Your task to perform on an android device: see tabs open on other devices in the chrome app Image 0: 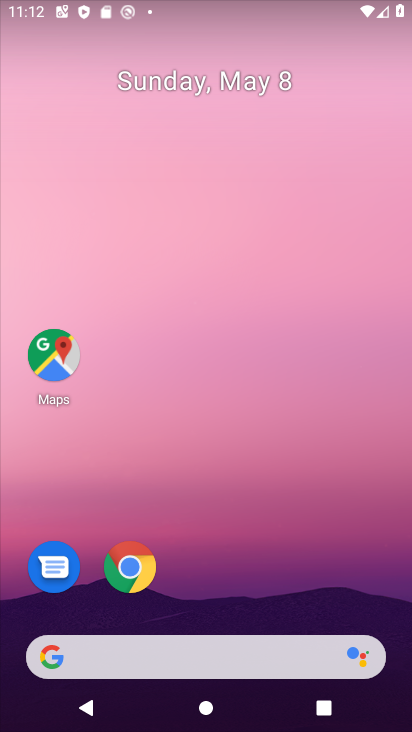
Step 0: click (127, 569)
Your task to perform on an android device: see tabs open on other devices in the chrome app Image 1: 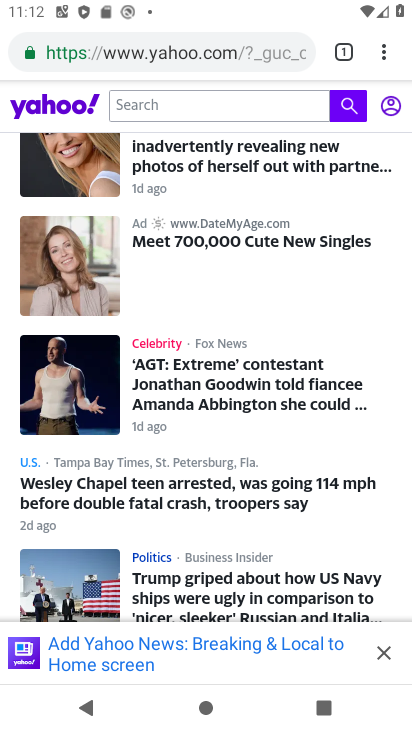
Step 1: click (380, 52)
Your task to perform on an android device: see tabs open on other devices in the chrome app Image 2: 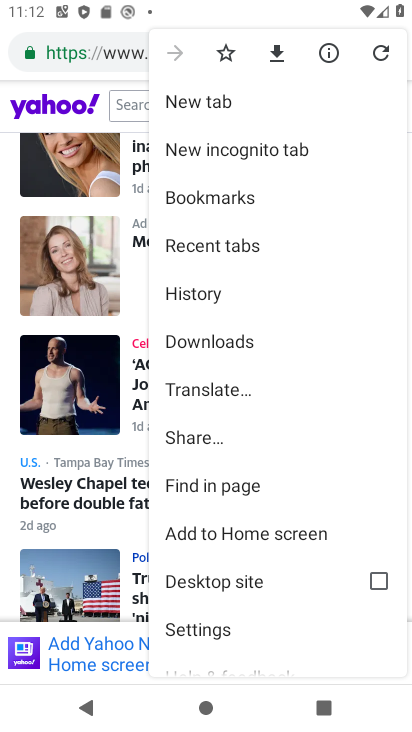
Step 2: click (265, 246)
Your task to perform on an android device: see tabs open on other devices in the chrome app Image 3: 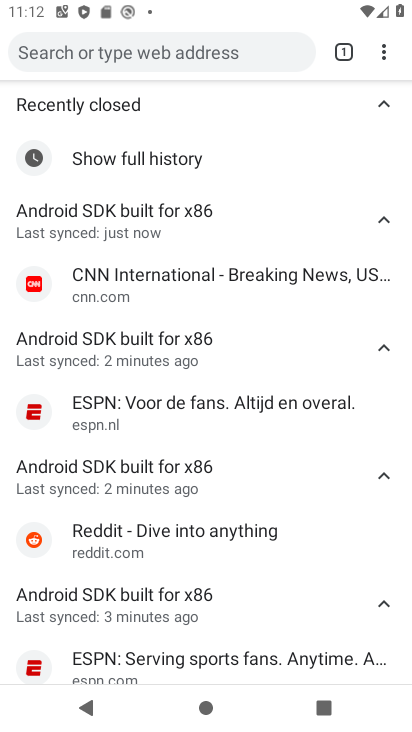
Step 3: task complete